Your task to perform on an android device: change the clock style Image 0: 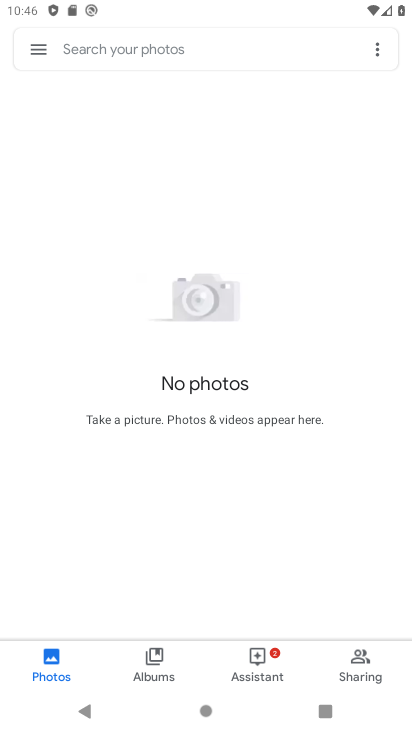
Step 0: press home button
Your task to perform on an android device: change the clock style Image 1: 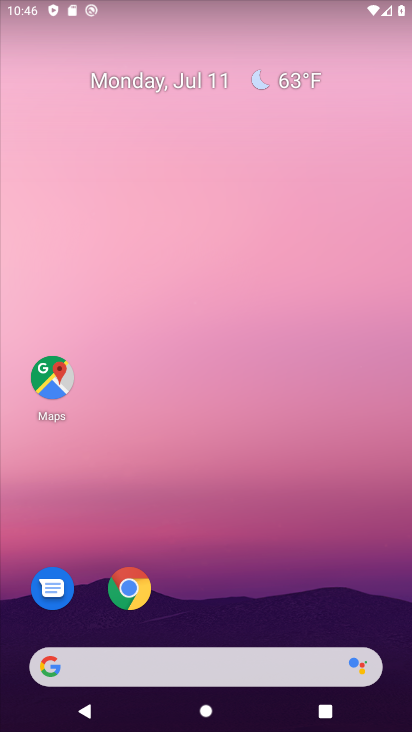
Step 1: drag from (230, 724) to (225, 147)
Your task to perform on an android device: change the clock style Image 2: 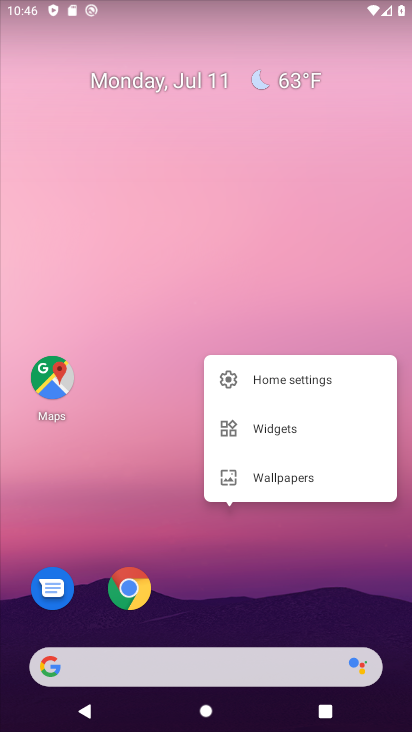
Step 2: click (249, 247)
Your task to perform on an android device: change the clock style Image 3: 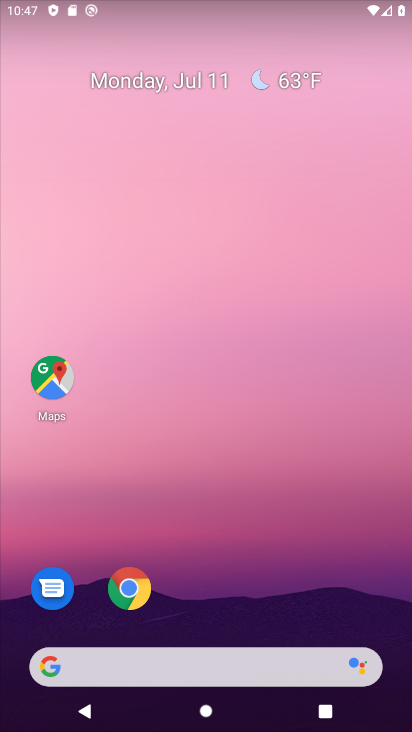
Step 3: drag from (261, 724) to (244, 169)
Your task to perform on an android device: change the clock style Image 4: 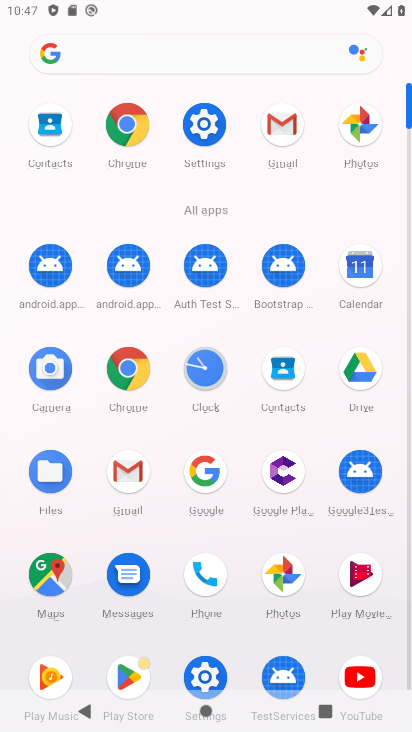
Step 4: click (194, 377)
Your task to perform on an android device: change the clock style Image 5: 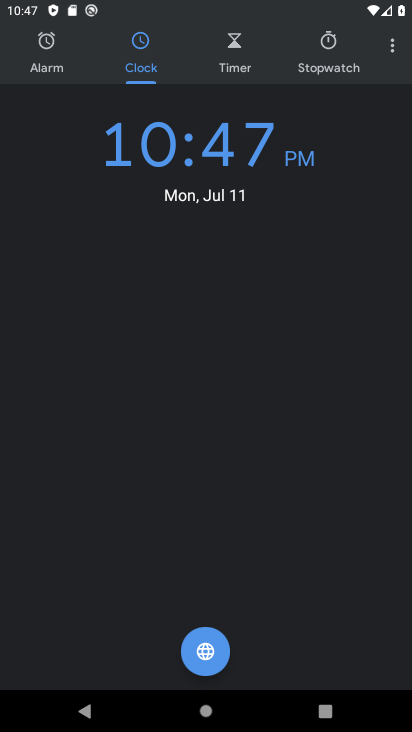
Step 5: click (394, 50)
Your task to perform on an android device: change the clock style Image 6: 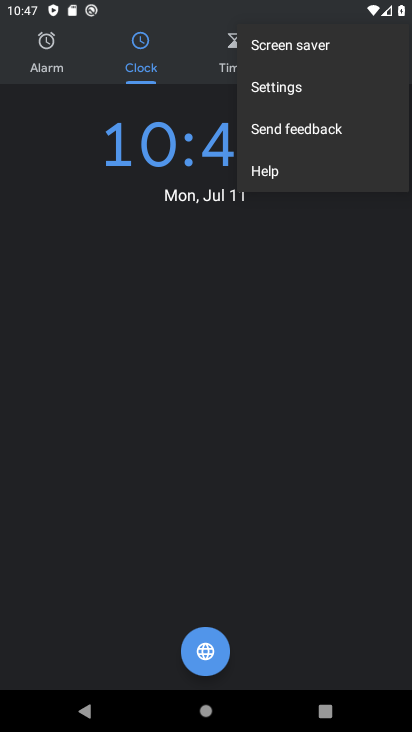
Step 6: click (289, 83)
Your task to perform on an android device: change the clock style Image 7: 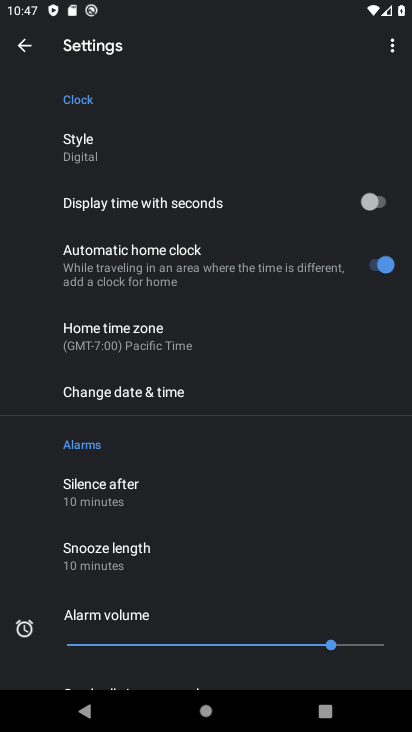
Step 7: click (72, 154)
Your task to perform on an android device: change the clock style Image 8: 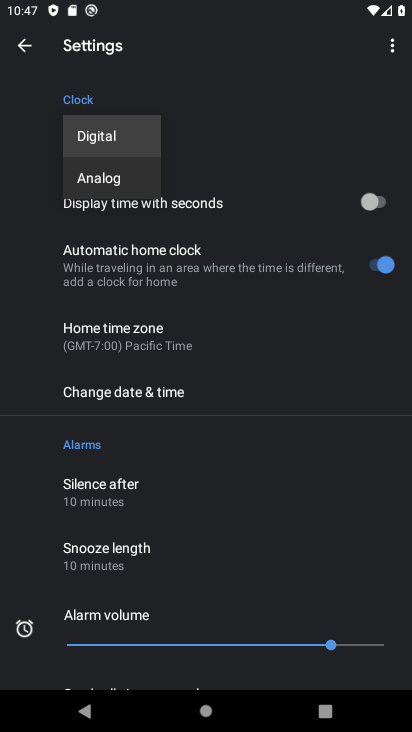
Step 8: click (104, 176)
Your task to perform on an android device: change the clock style Image 9: 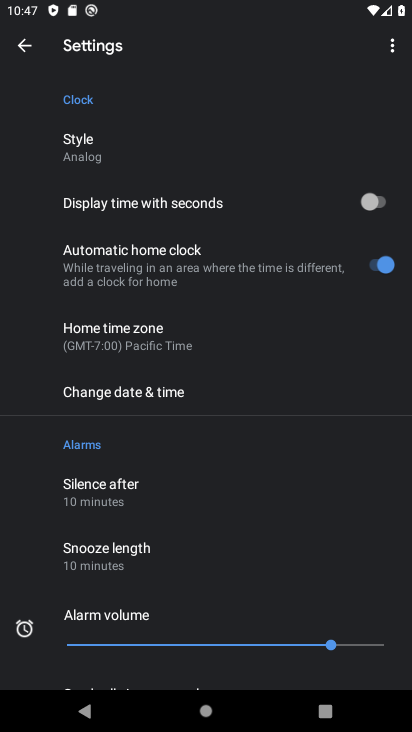
Step 9: task complete